Your task to perform on an android device: Go to internet settings Image 0: 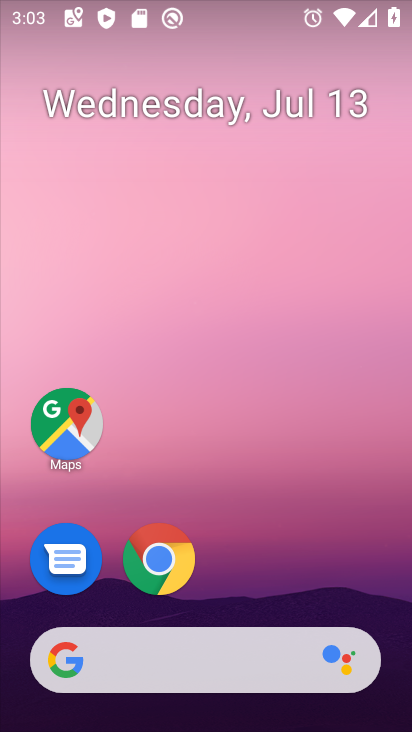
Step 0: drag from (348, 581) to (368, 171)
Your task to perform on an android device: Go to internet settings Image 1: 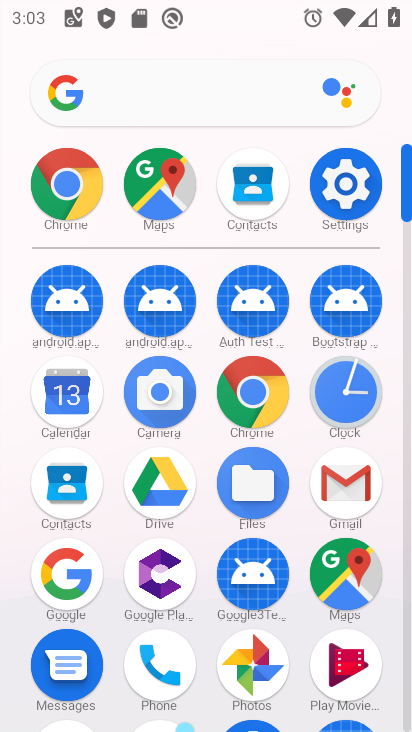
Step 1: click (367, 188)
Your task to perform on an android device: Go to internet settings Image 2: 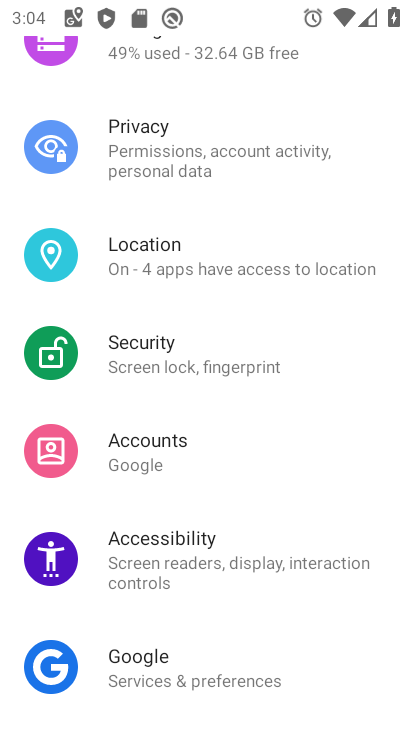
Step 2: drag from (364, 370) to (364, 280)
Your task to perform on an android device: Go to internet settings Image 3: 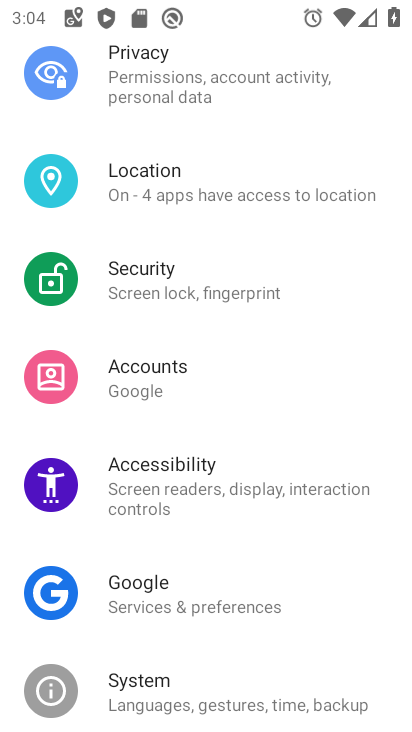
Step 3: drag from (368, 363) to (366, 237)
Your task to perform on an android device: Go to internet settings Image 4: 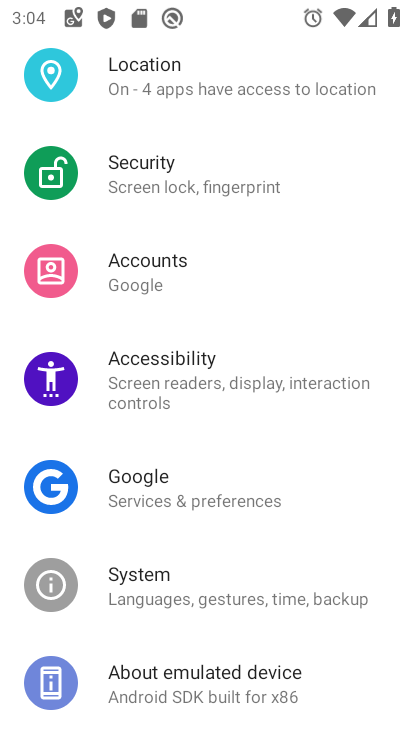
Step 4: drag from (356, 212) to (353, 275)
Your task to perform on an android device: Go to internet settings Image 5: 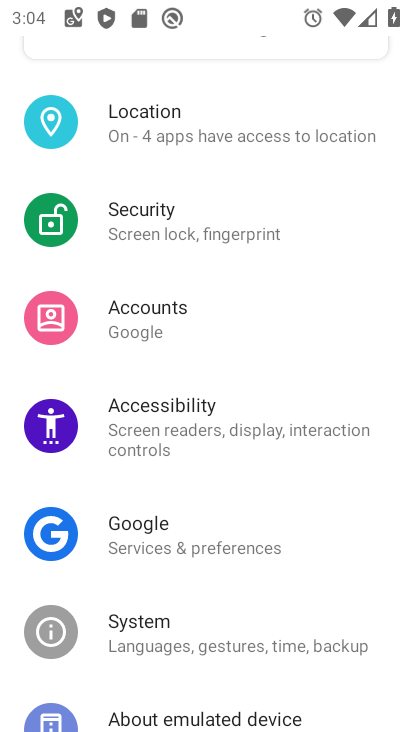
Step 5: drag from (362, 200) to (360, 279)
Your task to perform on an android device: Go to internet settings Image 6: 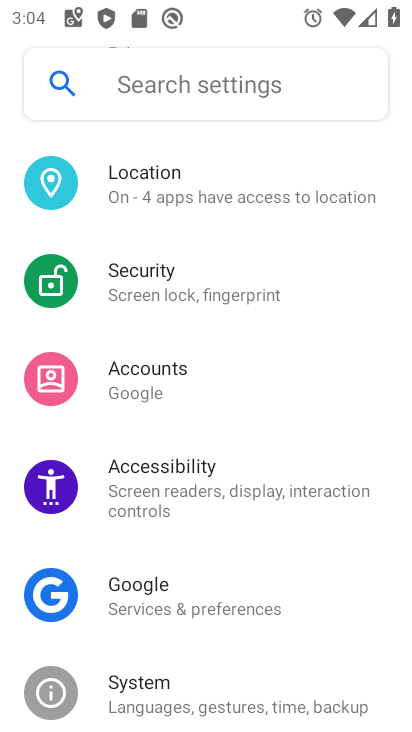
Step 6: drag from (352, 170) to (345, 268)
Your task to perform on an android device: Go to internet settings Image 7: 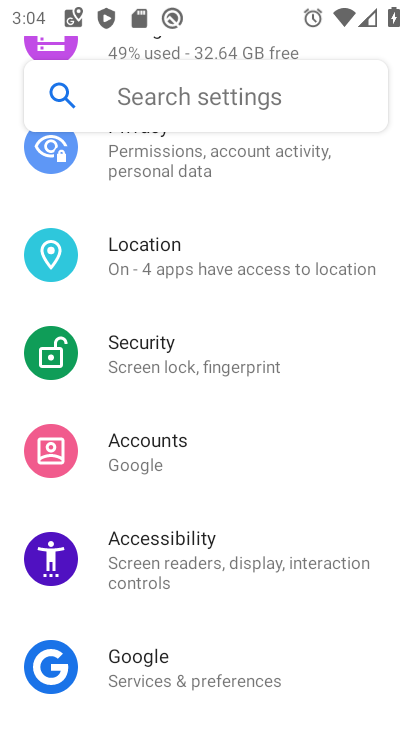
Step 7: drag from (363, 167) to (348, 272)
Your task to perform on an android device: Go to internet settings Image 8: 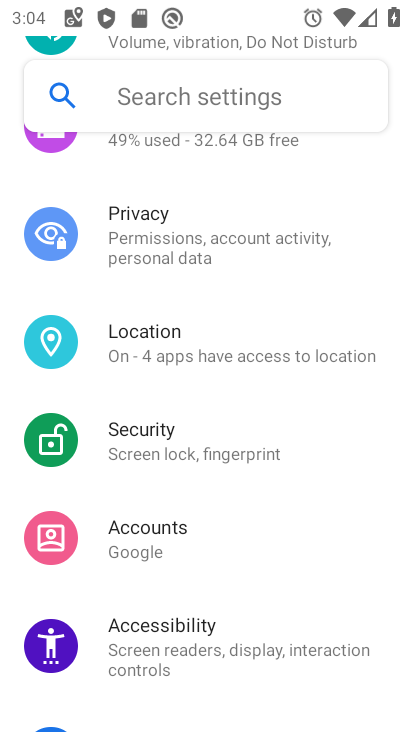
Step 8: drag from (347, 179) to (346, 273)
Your task to perform on an android device: Go to internet settings Image 9: 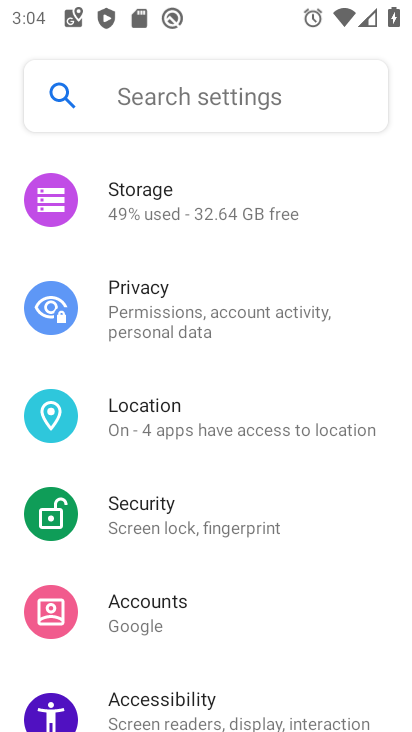
Step 9: drag from (347, 187) to (342, 289)
Your task to perform on an android device: Go to internet settings Image 10: 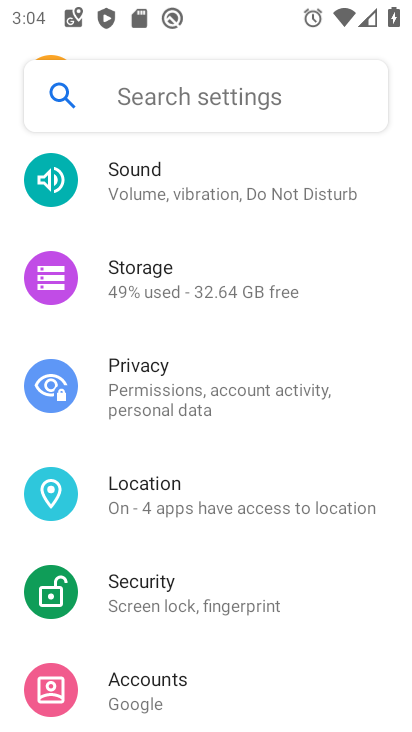
Step 10: drag from (372, 174) to (361, 281)
Your task to perform on an android device: Go to internet settings Image 11: 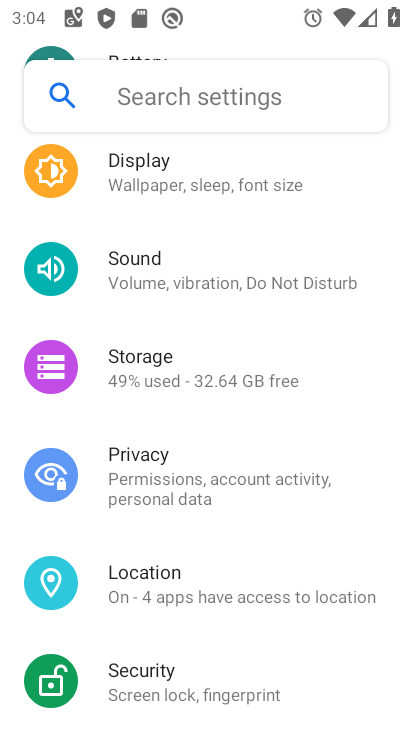
Step 11: drag from (361, 182) to (358, 278)
Your task to perform on an android device: Go to internet settings Image 12: 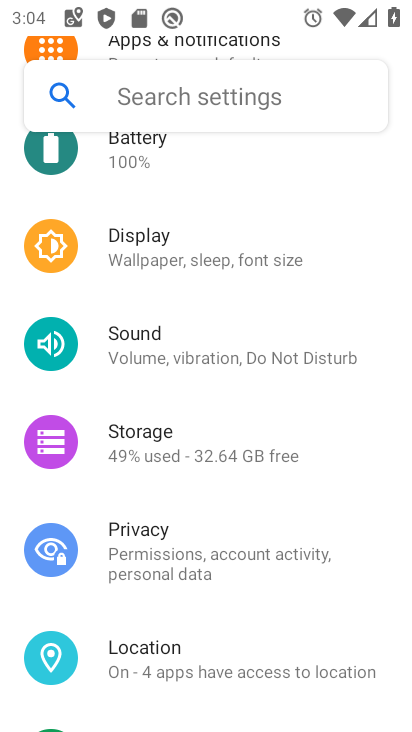
Step 12: drag from (348, 196) to (345, 298)
Your task to perform on an android device: Go to internet settings Image 13: 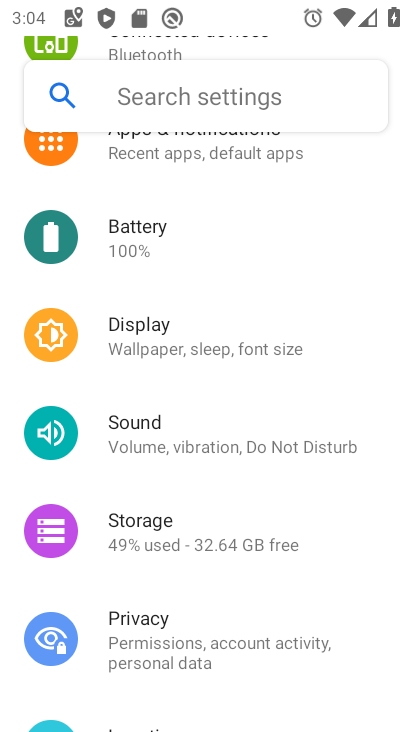
Step 13: drag from (345, 200) to (344, 319)
Your task to perform on an android device: Go to internet settings Image 14: 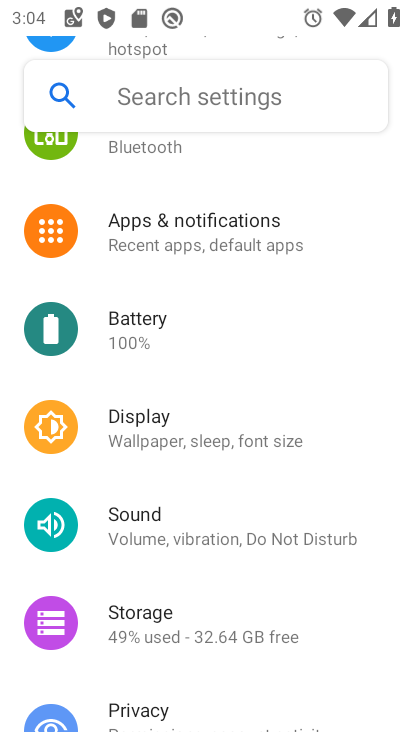
Step 14: drag from (343, 226) to (344, 381)
Your task to perform on an android device: Go to internet settings Image 15: 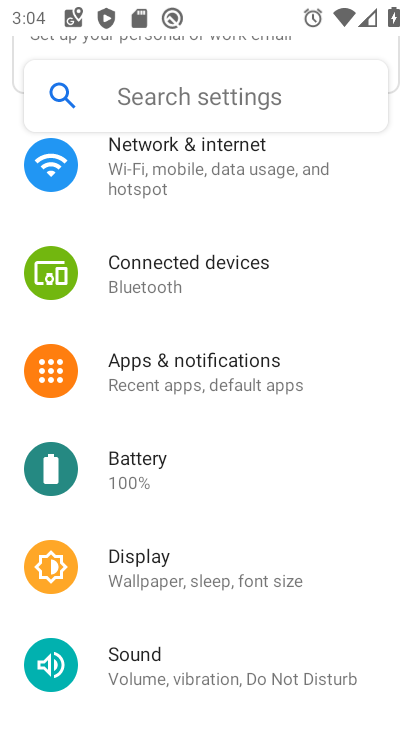
Step 15: drag from (356, 232) to (351, 365)
Your task to perform on an android device: Go to internet settings Image 16: 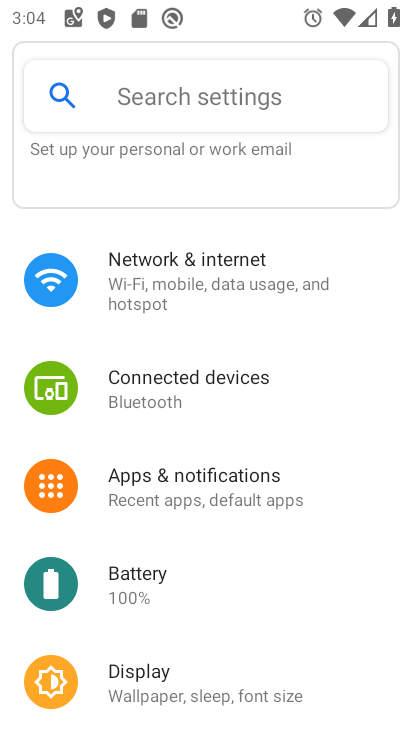
Step 16: click (324, 294)
Your task to perform on an android device: Go to internet settings Image 17: 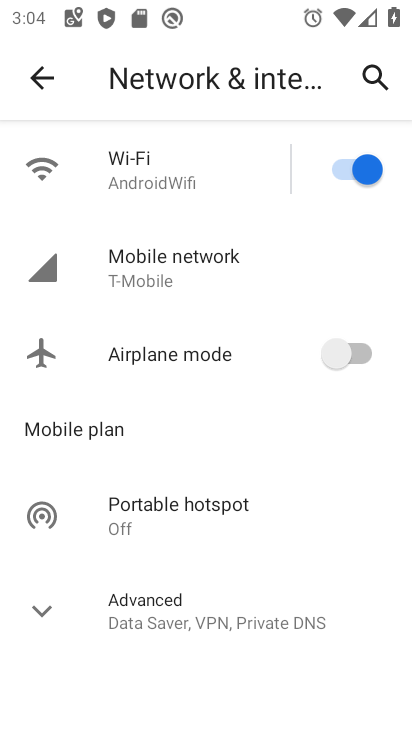
Step 17: task complete